Your task to perform on an android device: Search for Italian restaurants on Maps Image 0: 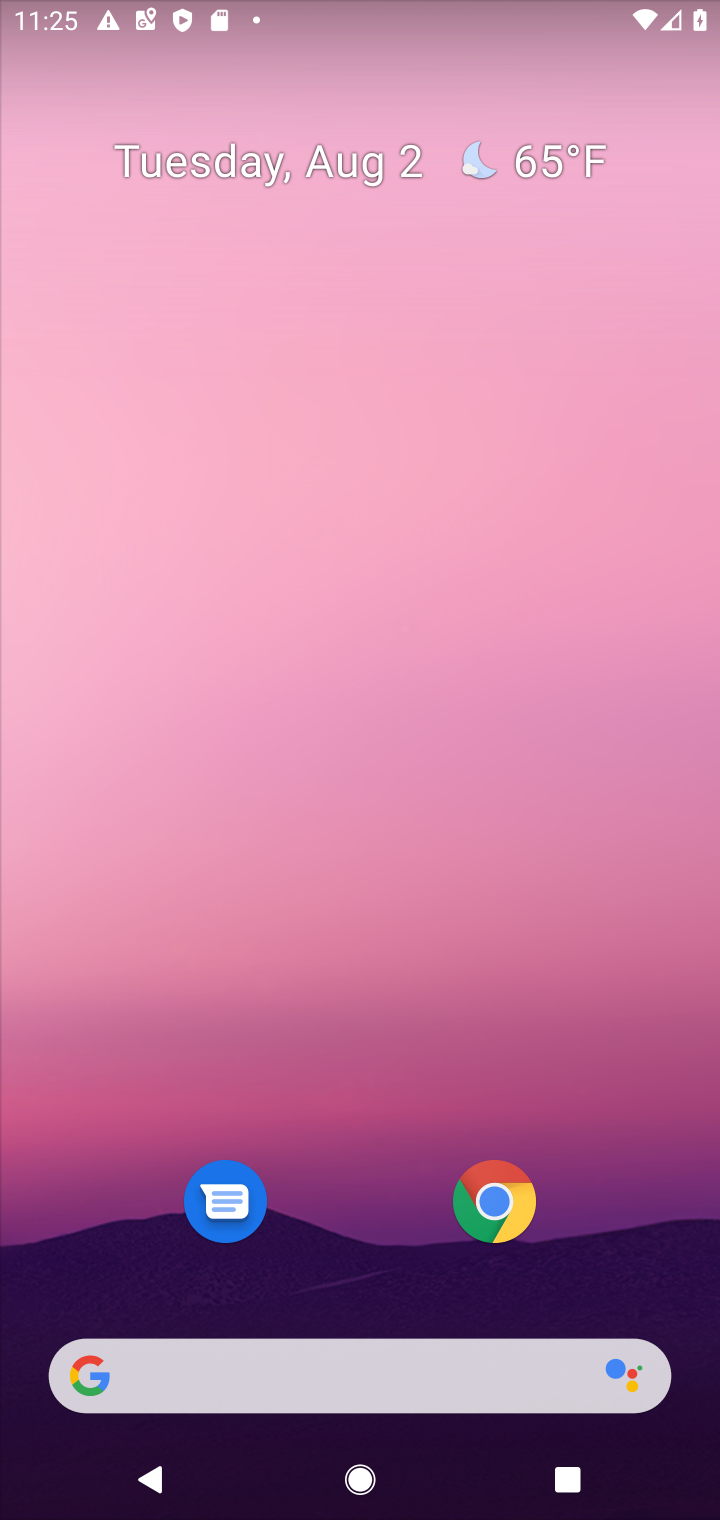
Step 0: drag from (435, 1286) to (418, 0)
Your task to perform on an android device: Search for Italian restaurants on Maps Image 1: 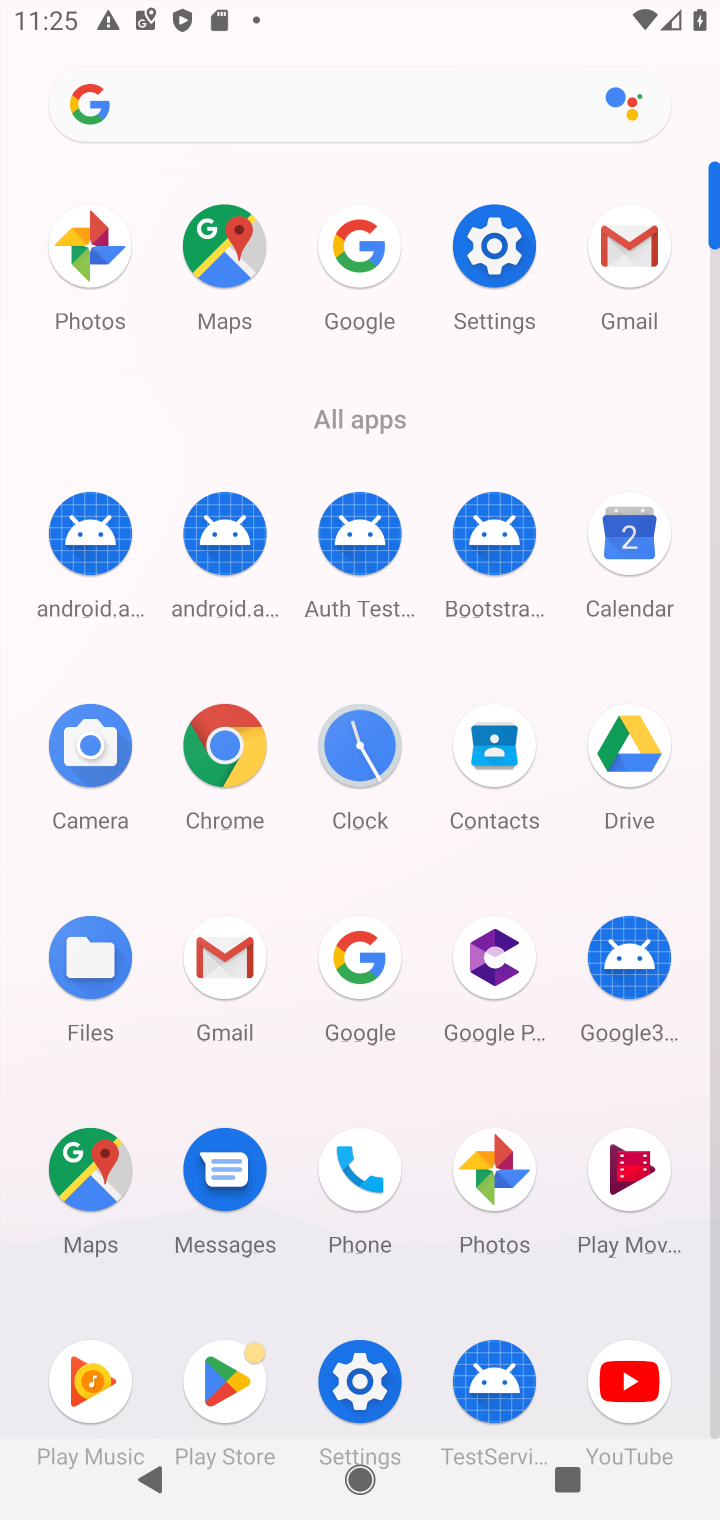
Step 1: click (90, 1177)
Your task to perform on an android device: Search for Italian restaurants on Maps Image 2: 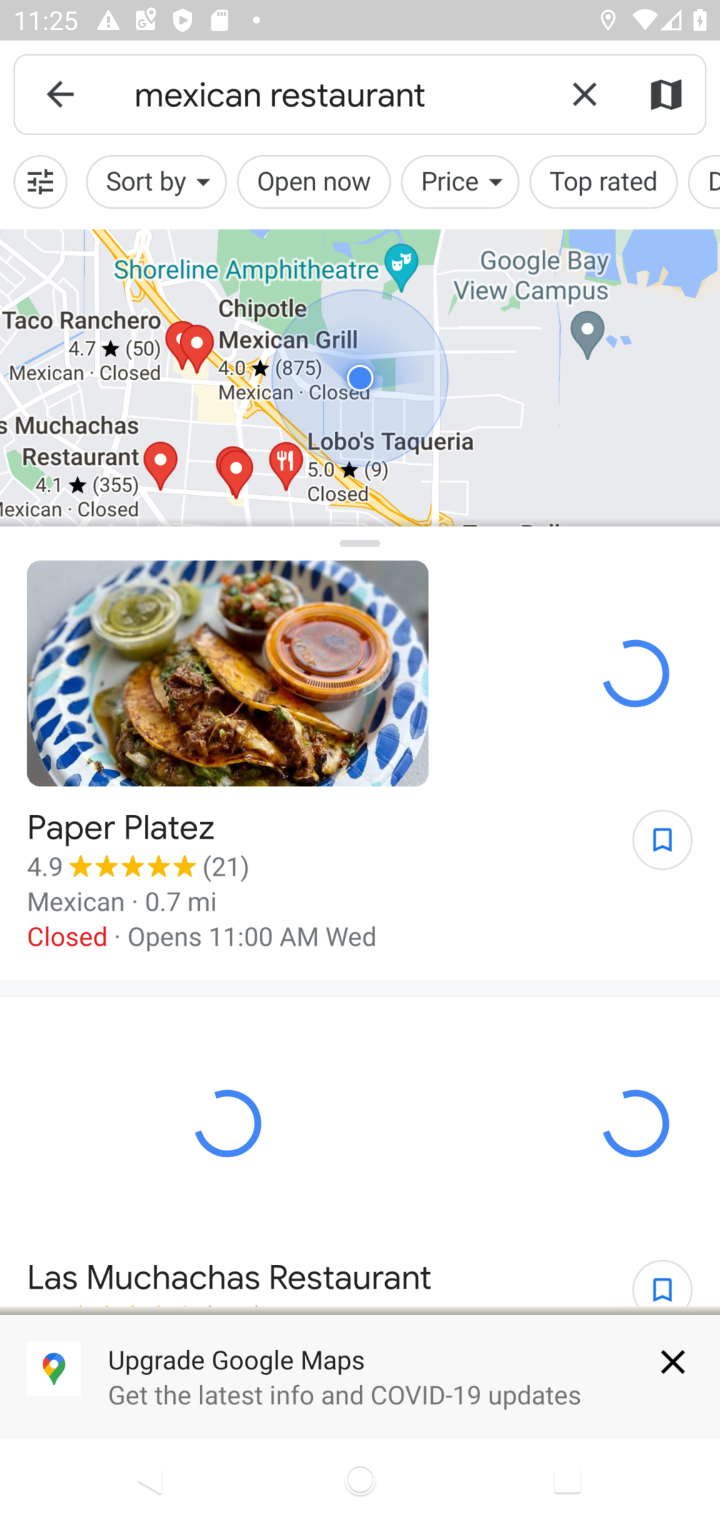
Step 2: click (41, 88)
Your task to perform on an android device: Search for Italian restaurants on Maps Image 3: 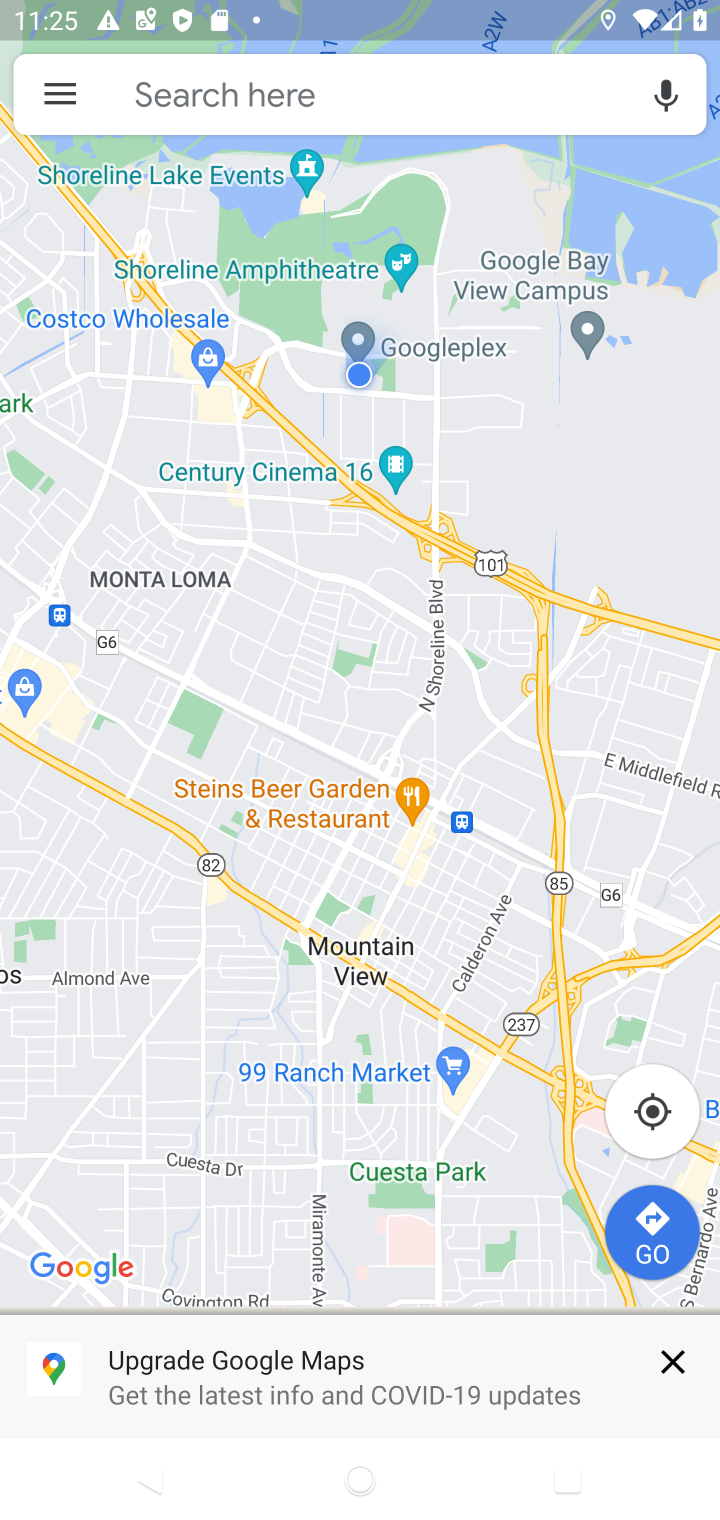
Step 3: click (402, 84)
Your task to perform on an android device: Search for Italian restaurants on Maps Image 4: 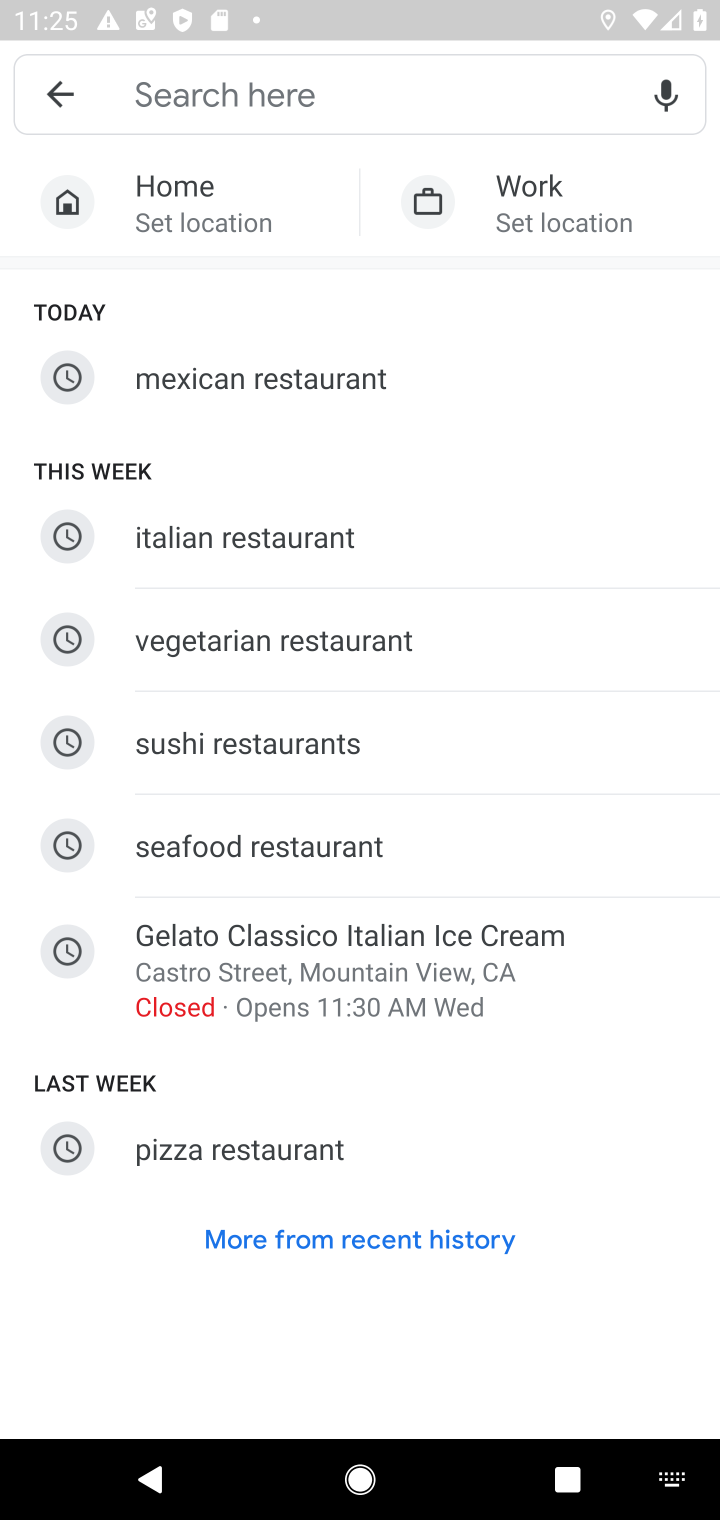
Step 4: click (182, 523)
Your task to perform on an android device: Search for Italian restaurants on Maps Image 5: 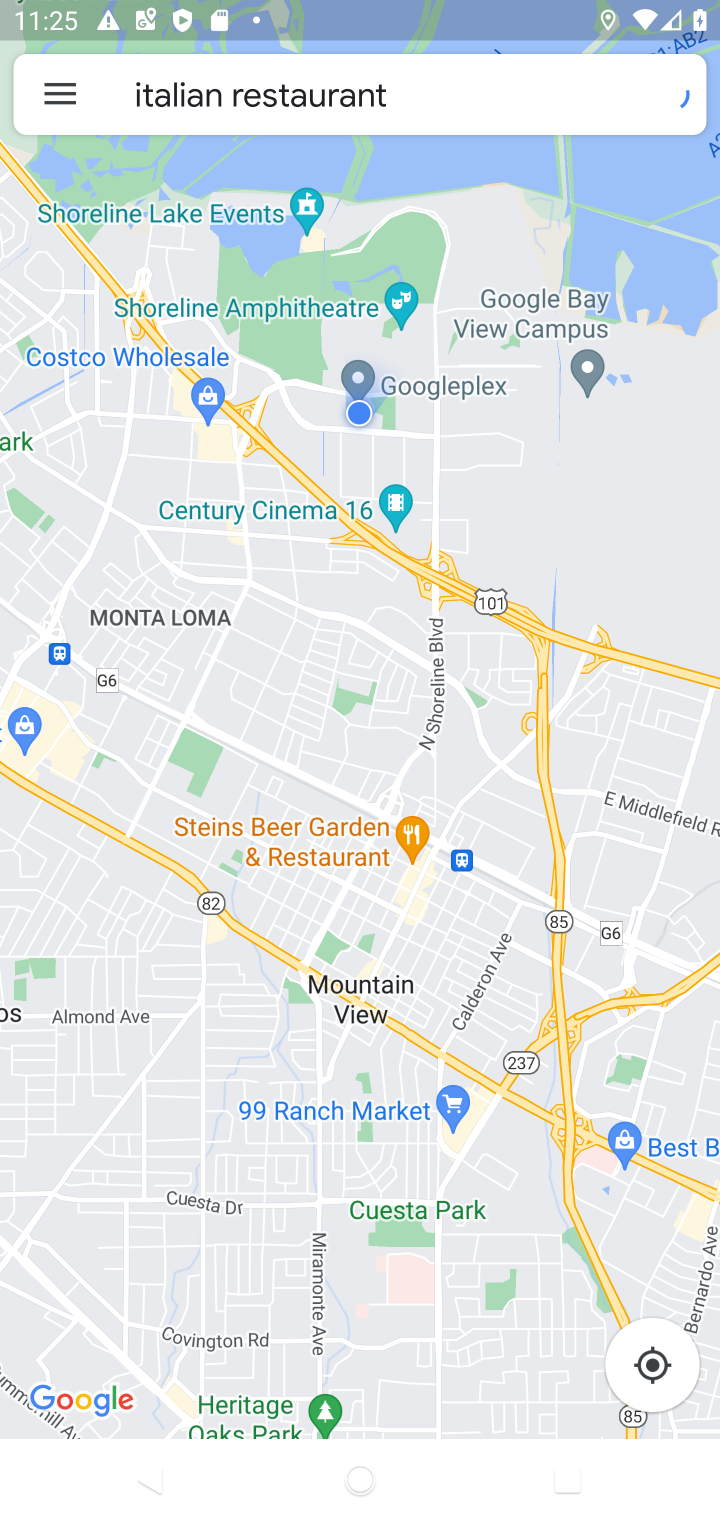
Step 5: task complete